Your task to perform on an android device: Go to privacy settings Image 0: 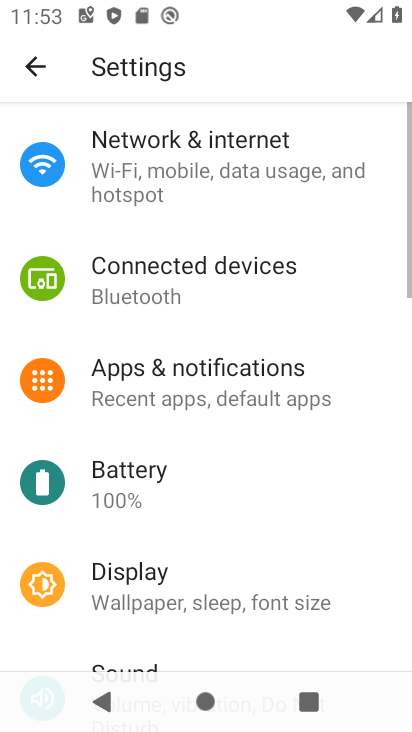
Step 0: press home button
Your task to perform on an android device: Go to privacy settings Image 1: 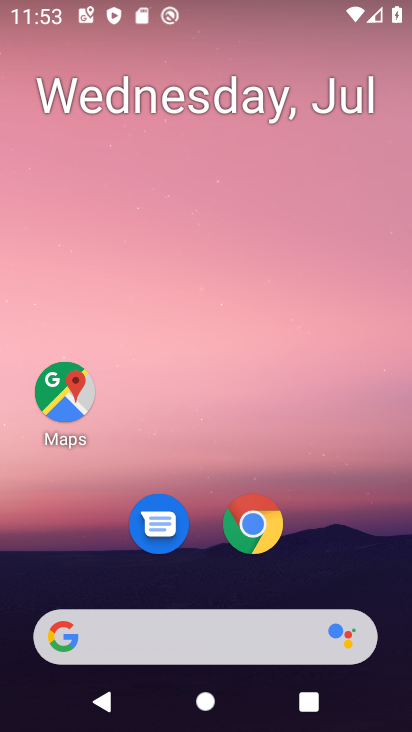
Step 1: drag from (195, 643) to (265, 150)
Your task to perform on an android device: Go to privacy settings Image 2: 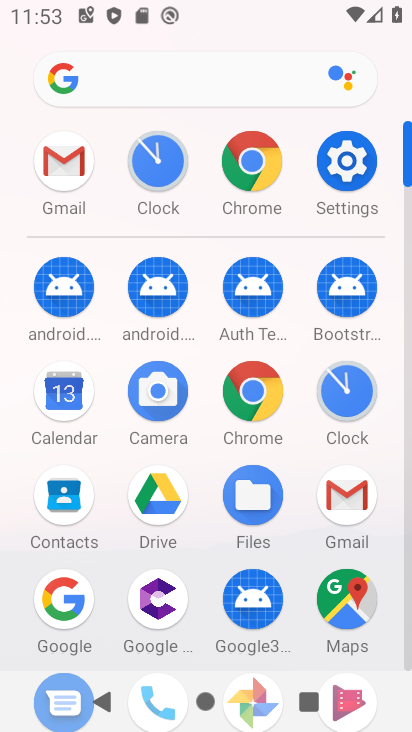
Step 2: click (343, 168)
Your task to perform on an android device: Go to privacy settings Image 3: 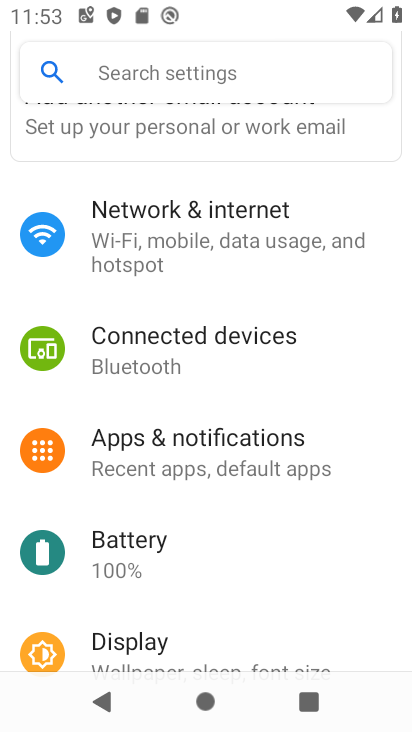
Step 3: drag from (209, 557) to (283, 112)
Your task to perform on an android device: Go to privacy settings Image 4: 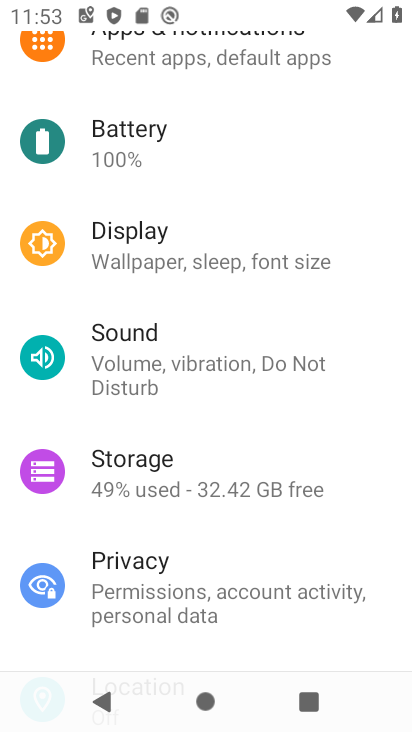
Step 4: click (138, 587)
Your task to perform on an android device: Go to privacy settings Image 5: 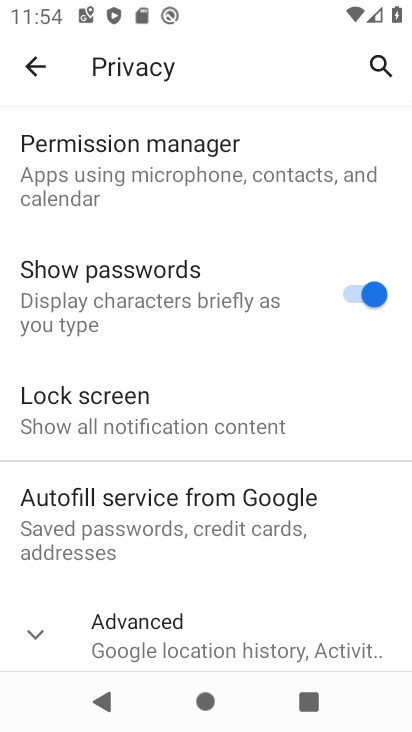
Step 5: task complete